Your task to perform on an android device: turn off data saver in the chrome app Image 0: 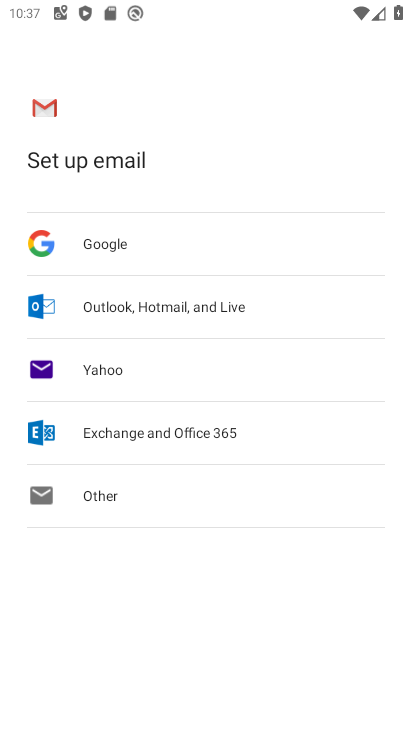
Step 0: press home button
Your task to perform on an android device: turn off data saver in the chrome app Image 1: 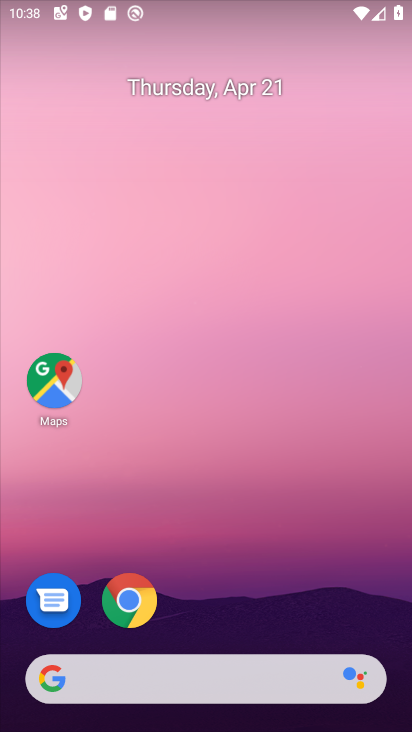
Step 1: drag from (298, 563) to (329, 30)
Your task to perform on an android device: turn off data saver in the chrome app Image 2: 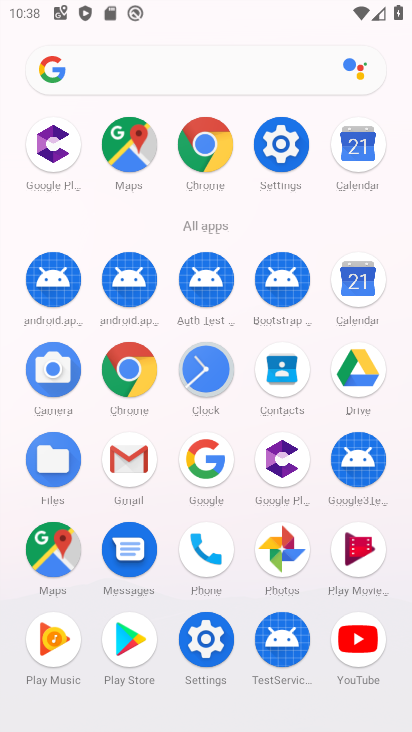
Step 2: click (220, 140)
Your task to perform on an android device: turn off data saver in the chrome app Image 3: 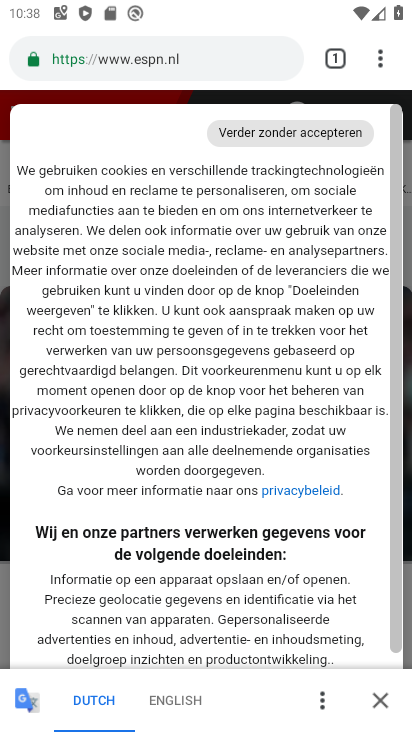
Step 3: drag from (382, 56) to (239, 622)
Your task to perform on an android device: turn off data saver in the chrome app Image 4: 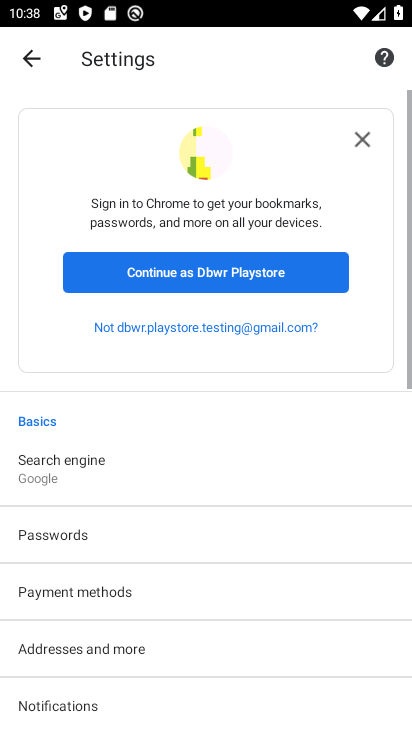
Step 4: drag from (236, 626) to (198, 238)
Your task to perform on an android device: turn off data saver in the chrome app Image 5: 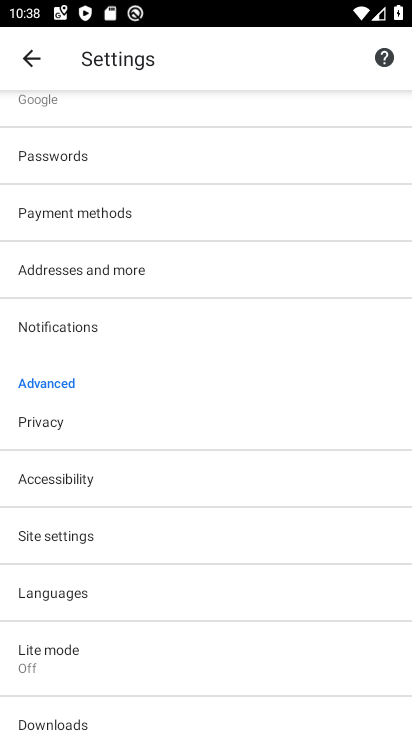
Step 5: click (104, 664)
Your task to perform on an android device: turn off data saver in the chrome app Image 6: 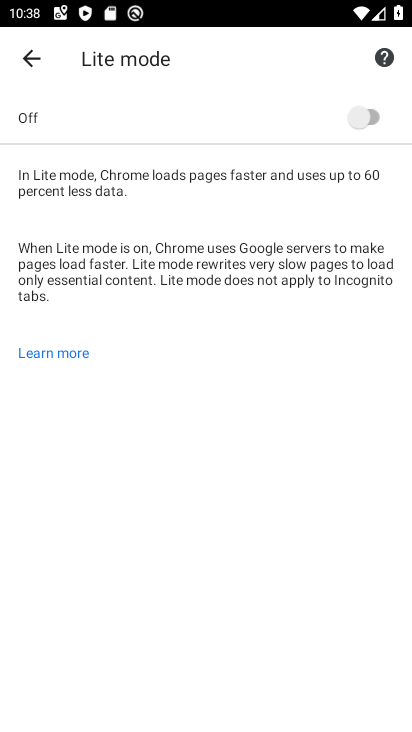
Step 6: task complete